Your task to perform on an android device: snooze an email in the gmail app Image 0: 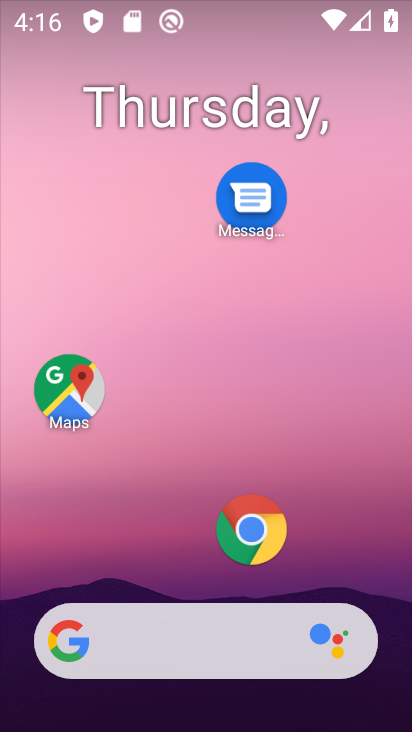
Step 0: drag from (167, 561) to (270, 124)
Your task to perform on an android device: snooze an email in the gmail app Image 1: 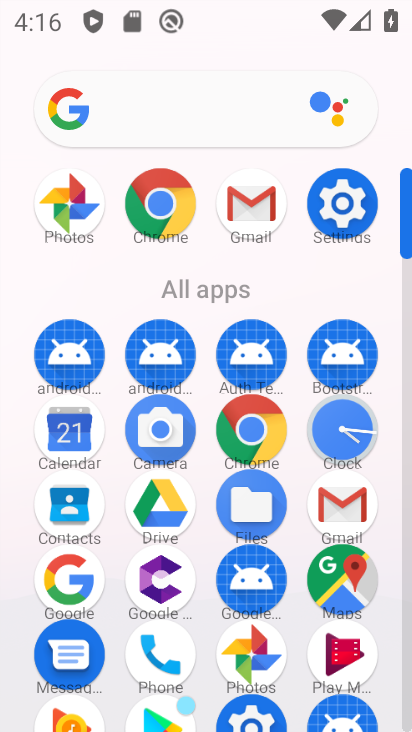
Step 1: click (247, 203)
Your task to perform on an android device: snooze an email in the gmail app Image 2: 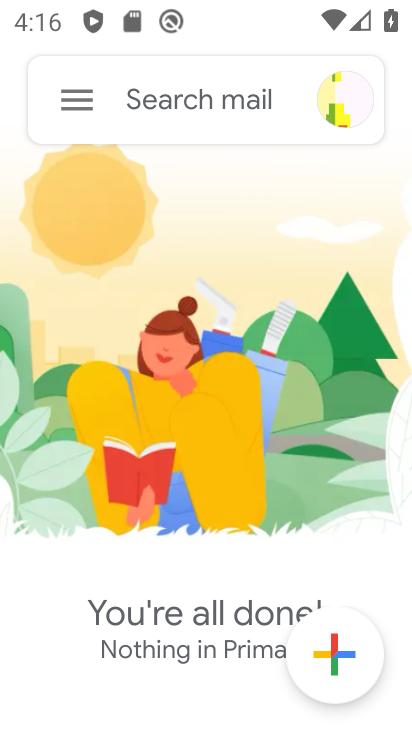
Step 2: click (74, 99)
Your task to perform on an android device: snooze an email in the gmail app Image 3: 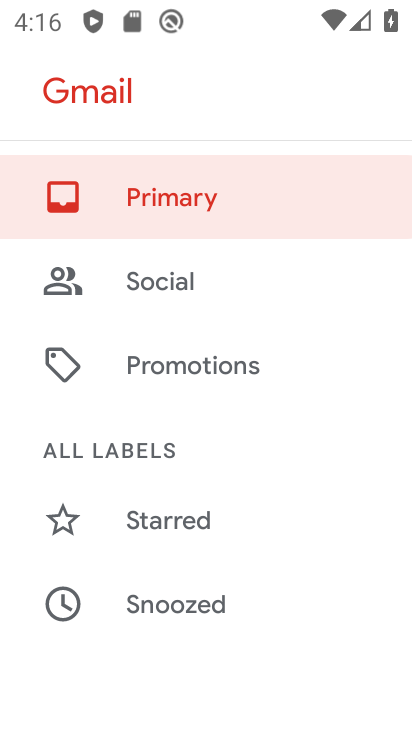
Step 3: drag from (233, 625) to (360, 166)
Your task to perform on an android device: snooze an email in the gmail app Image 4: 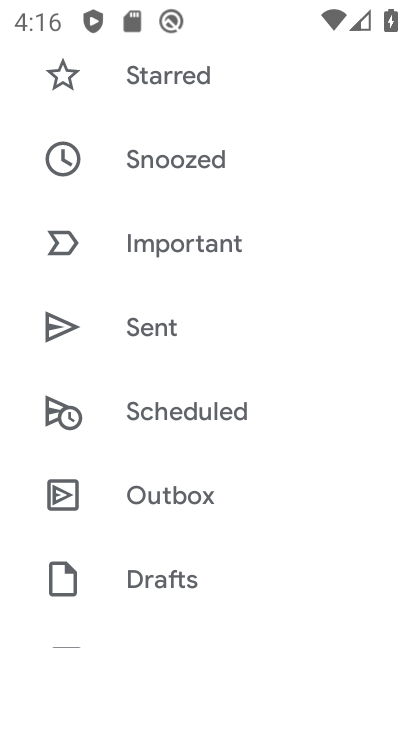
Step 4: drag from (190, 556) to (310, 150)
Your task to perform on an android device: snooze an email in the gmail app Image 5: 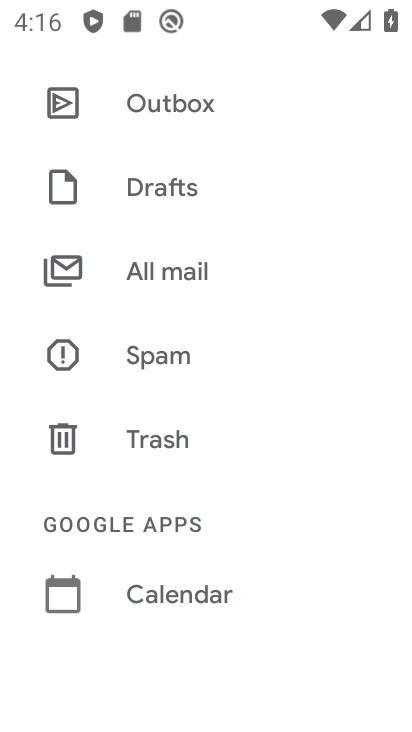
Step 5: click (161, 266)
Your task to perform on an android device: snooze an email in the gmail app Image 6: 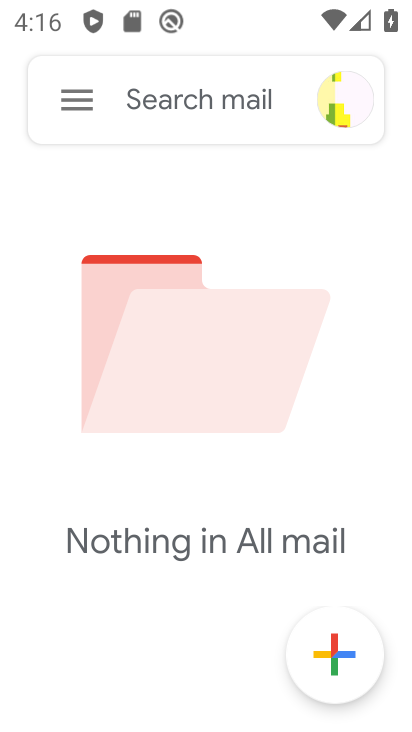
Step 6: task complete